Your task to perform on an android device: turn on data saver in the chrome app Image 0: 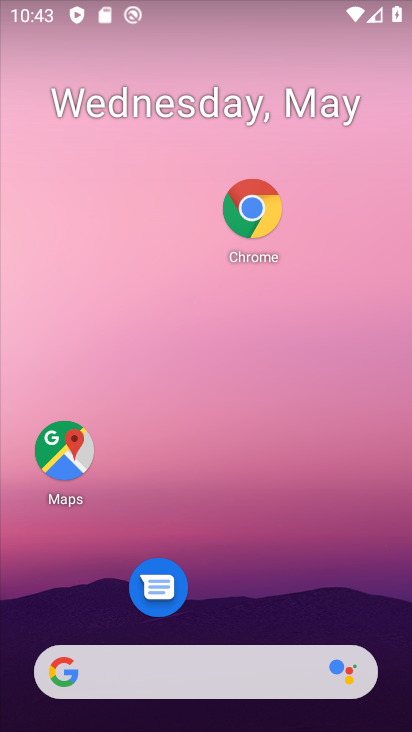
Step 0: click (206, 159)
Your task to perform on an android device: turn on data saver in the chrome app Image 1: 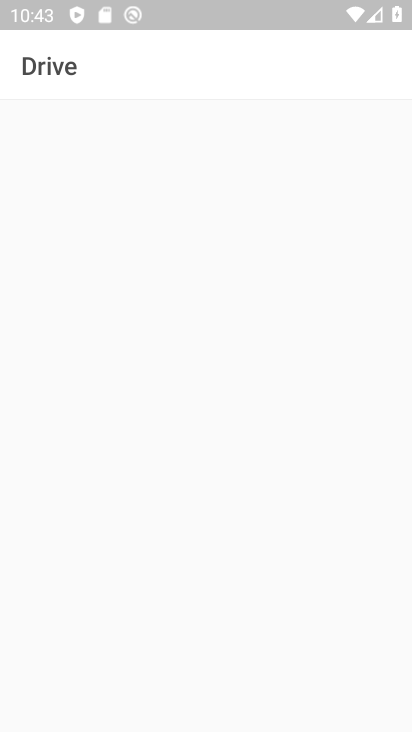
Step 1: press home button
Your task to perform on an android device: turn on data saver in the chrome app Image 2: 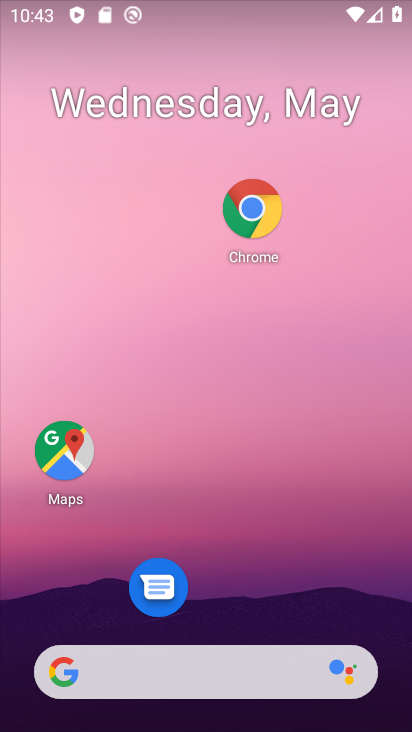
Step 2: drag from (228, 610) to (179, 129)
Your task to perform on an android device: turn on data saver in the chrome app Image 3: 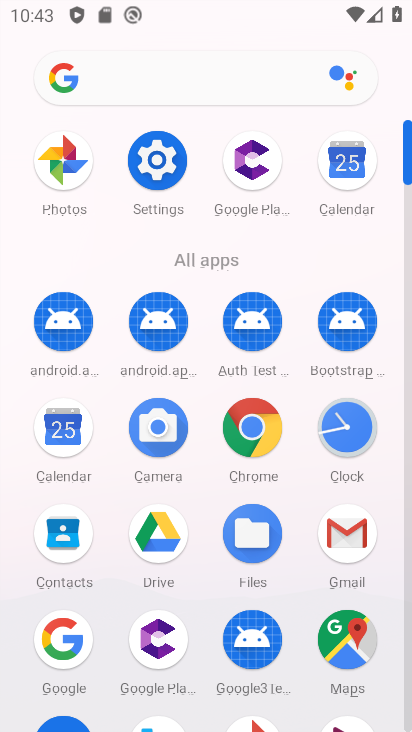
Step 3: click (160, 161)
Your task to perform on an android device: turn on data saver in the chrome app Image 4: 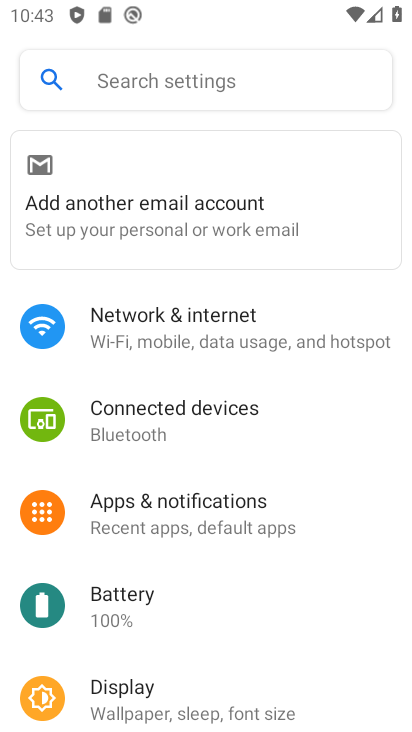
Step 4: click (113, 326)
Your task to perform on an android device: turn on data saver in the chrome app Image 5: 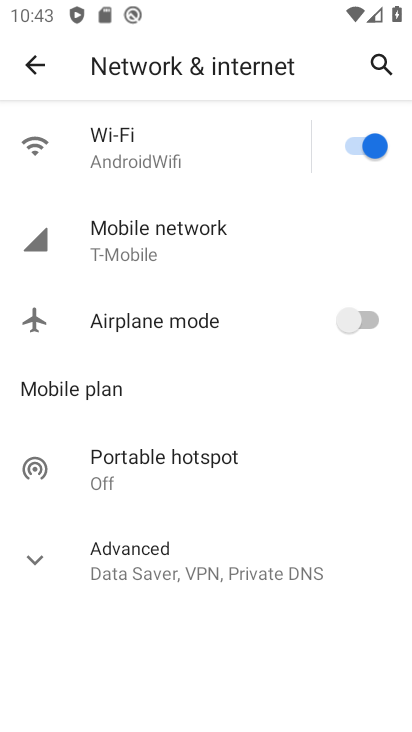
Step 5: task complete